Your task to perform on an android device: search for starred emails in the gmail app Image 0: 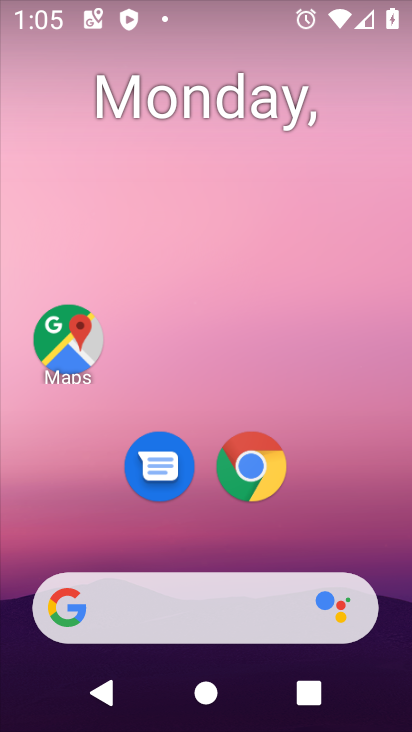
Step 0: drag from (388, 619) to (259, 21)
Your task to perform on an android device: search for starred emails in the gmail app Image 1: 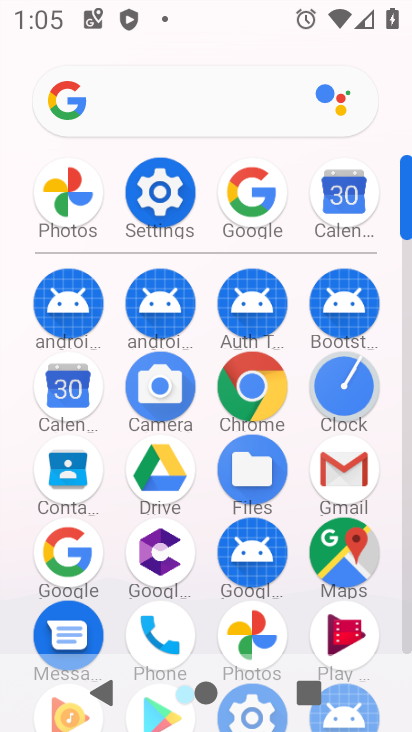
Step 1: click (335, 474)
Your task to perform on an android device: search for starred emails in the gmail app Image 2: 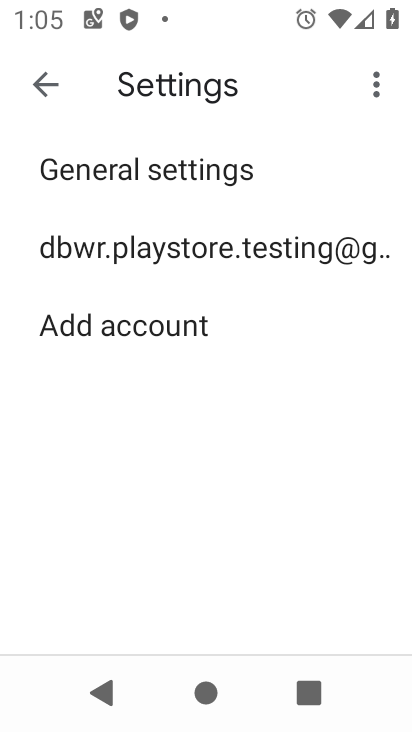
Step 2: press back button
Your task to perform on an android device: search for starred emails in the gmail app Image 3: 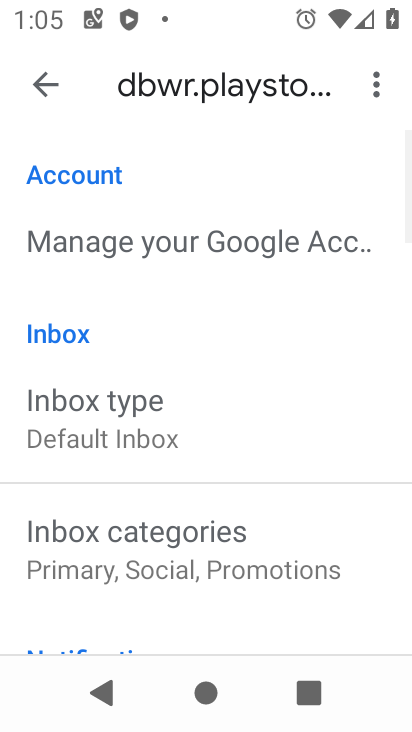
Step 3: press back button
Your task to perform on an android device: search for starred emails in the gmail app Image 4: 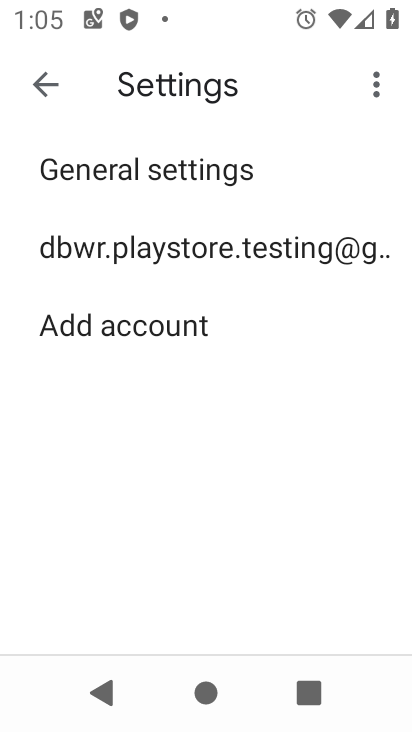
Step 4: press back button
Your task to perform on an android device: search for starred emails in the gmail app Image 5: 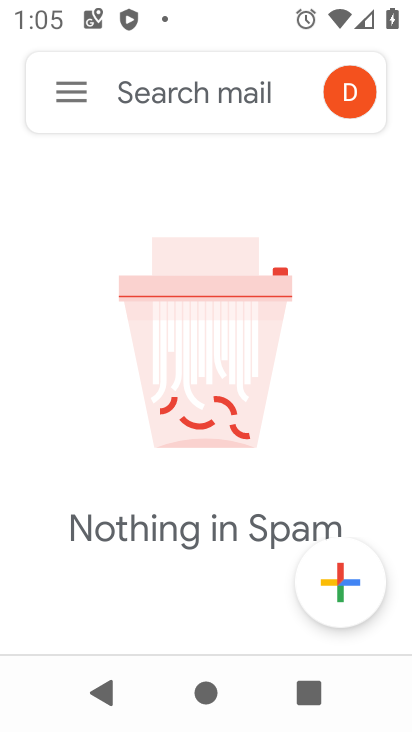
Step 5: click (55, 86)
Your task to perform on an android device: search for starred emails in the gmail app Image 6: 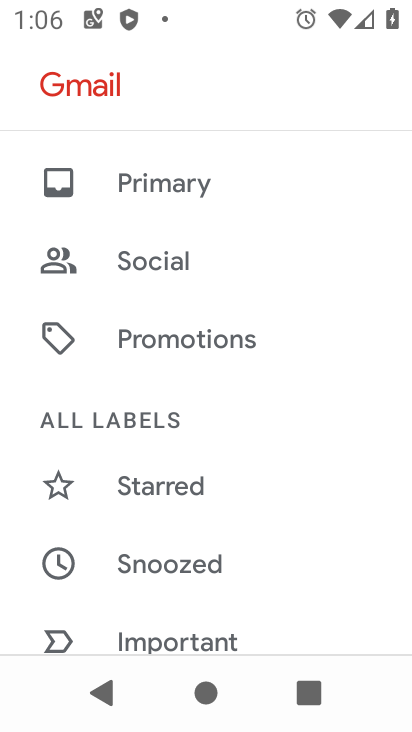
Step 6: click (173, 502)
Your task to perform on an android device: search for starred emails in the gmail app Image 7: 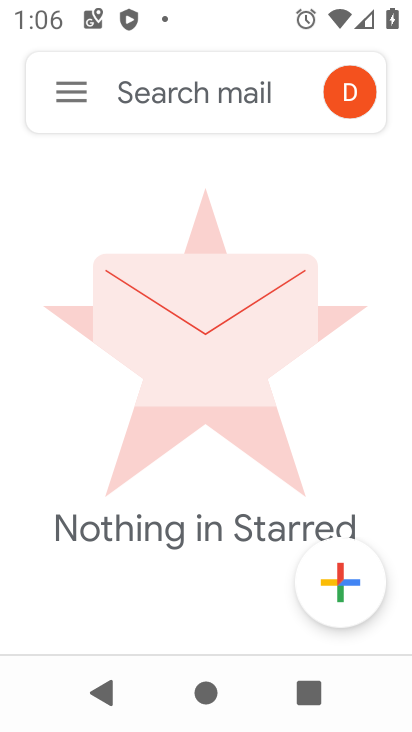
Step 7: task complete